Your task to perform on an android device: turn on location history Image 0: 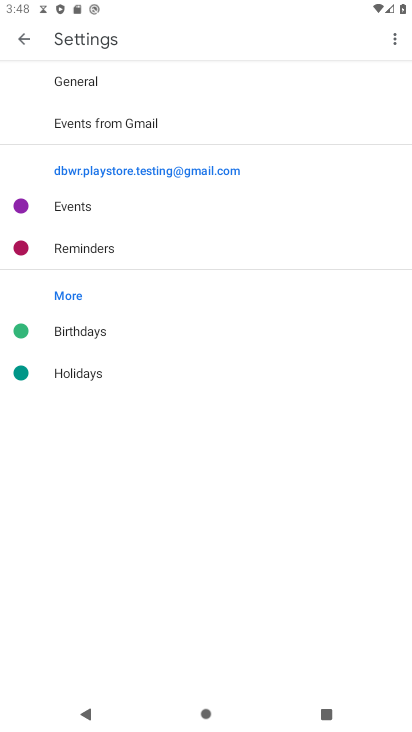
Step 0: press home button
Your task to perform on an android device: turn on location history Image 1: 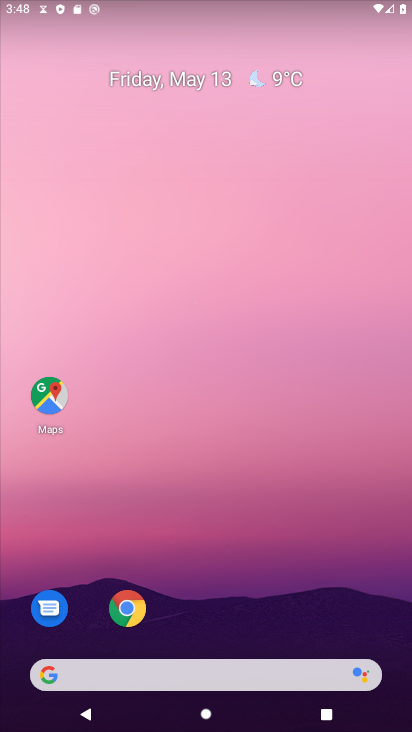
Step 1: drag from (295, 651) to (295, 208)
Your task to perform on an android device: turn on location history Image 2: 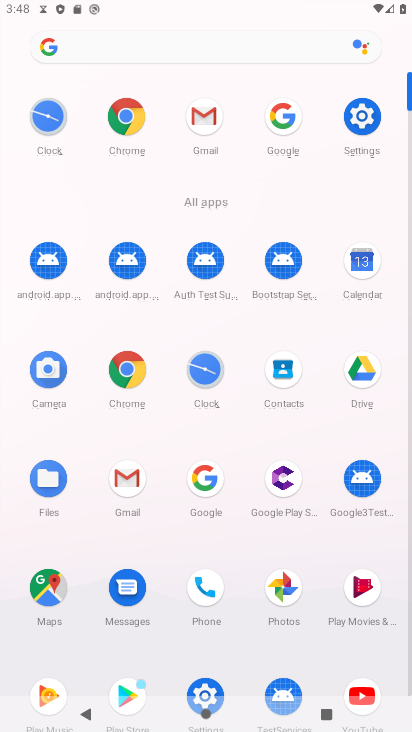
Step 2: click (363, 130)
Your task to perform on an android device: turn on location history Image 3: 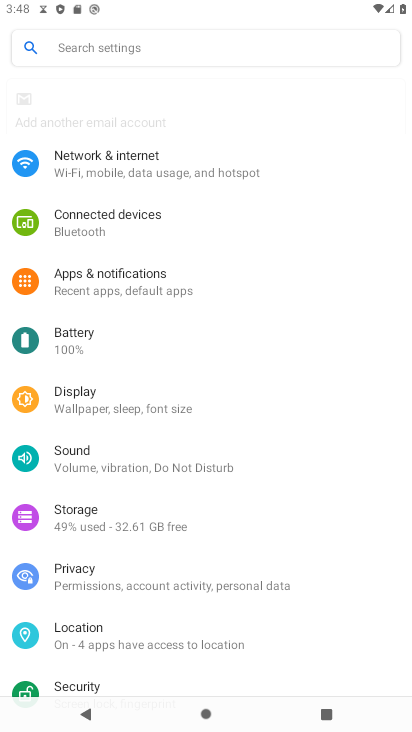
Step 3: click (130, 582)
Your task to perform on an android device: turn on location history Image 4: 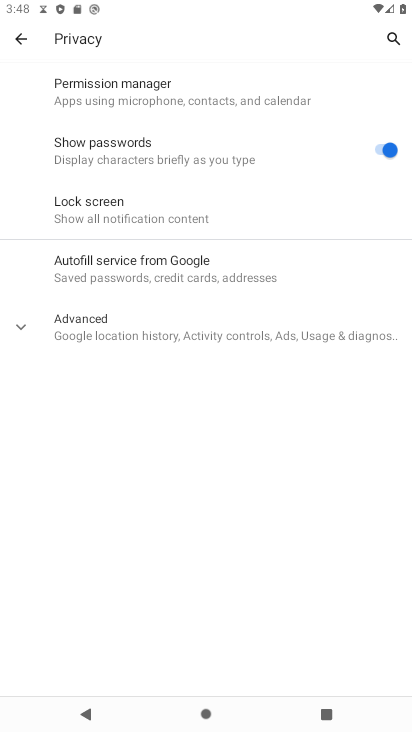
Step 4: click (20, 15)
Your task to perform on an android device: turn on location history Image 5: 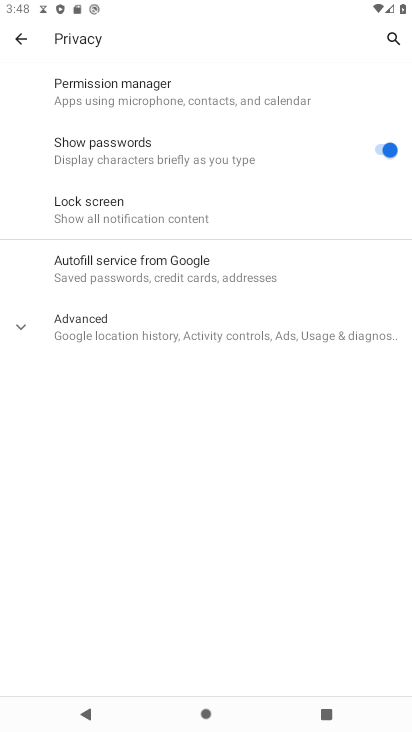
Step 5: click (18, 24)
Your task to perform on an android device: turn on location history Image 6: 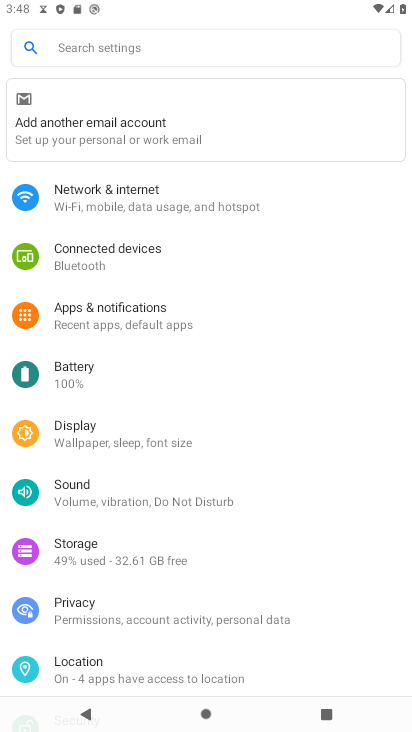
Step 6: click (112, 659)
Your task to perform on an android device: turn on location history Image 7: 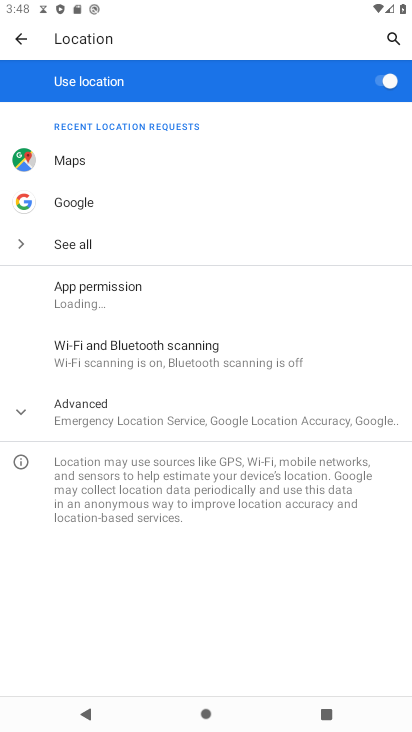
Step 7: click (133, 403)
Your task to perform on an android device: turn on location history Image 8: 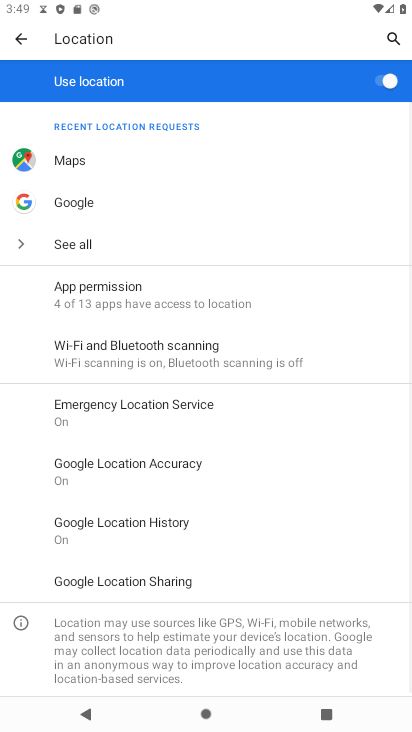
Step 8: click (140, 524)
Your task to perform on an android device: turn on location history Image 9: 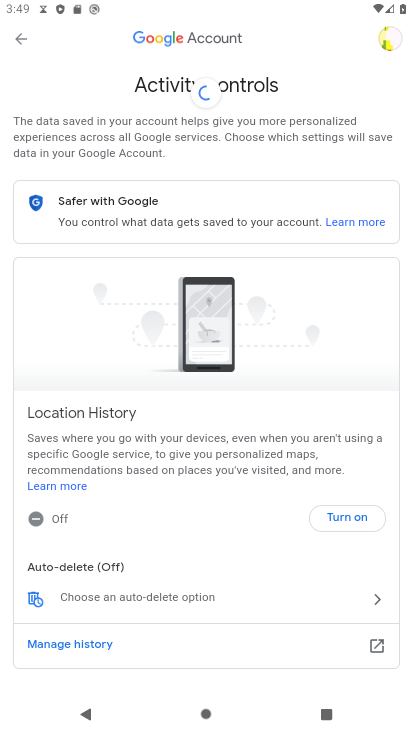
Step 9: click (339, 518)
Your task to perform on an android device: turn on location history Image 10: 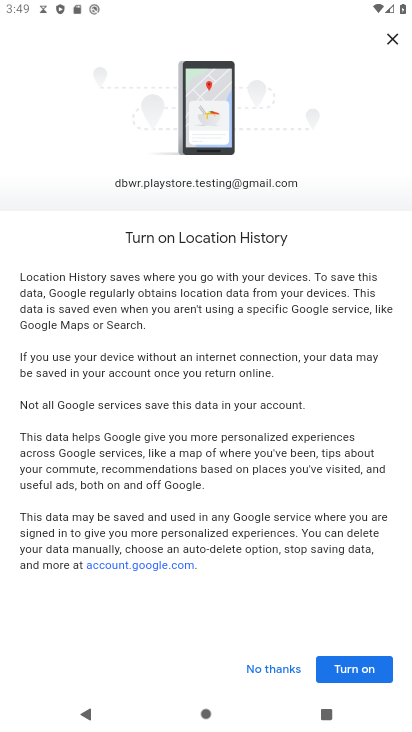
Step 10: click (357, 676)
Your task to perform on an android device: turn on location history Image 11: 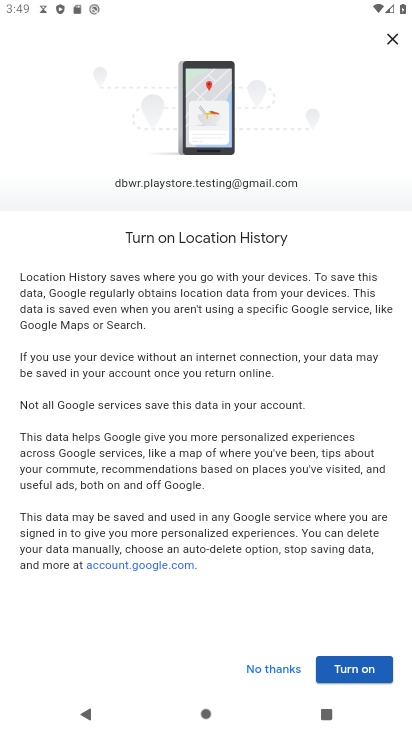
Step 11: click (353, 672)
Your task to perform on an android device: turn on location history Image 12: 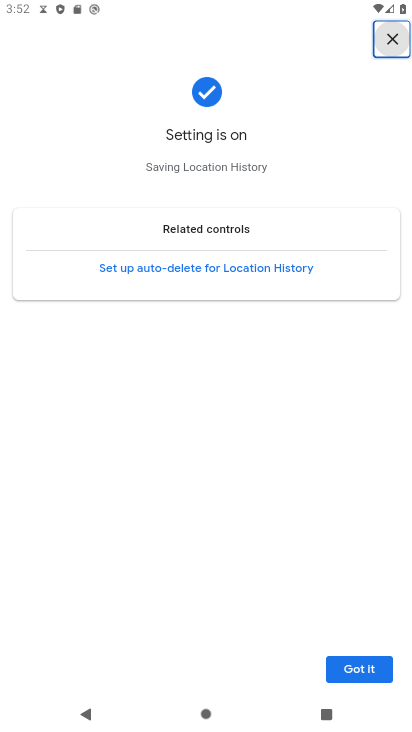
Step 12: click (361, 663)
Your task to perform on an android device: turn on location history Image 13: 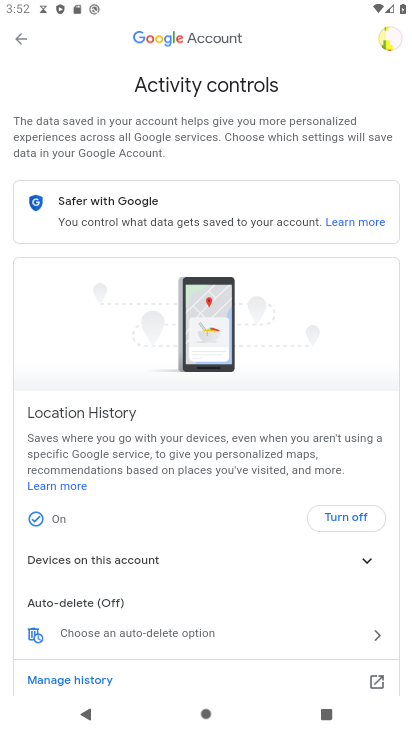
Step 13: task complete